Your task to perform on an android device: change notification settings in the gmail app Image 0: 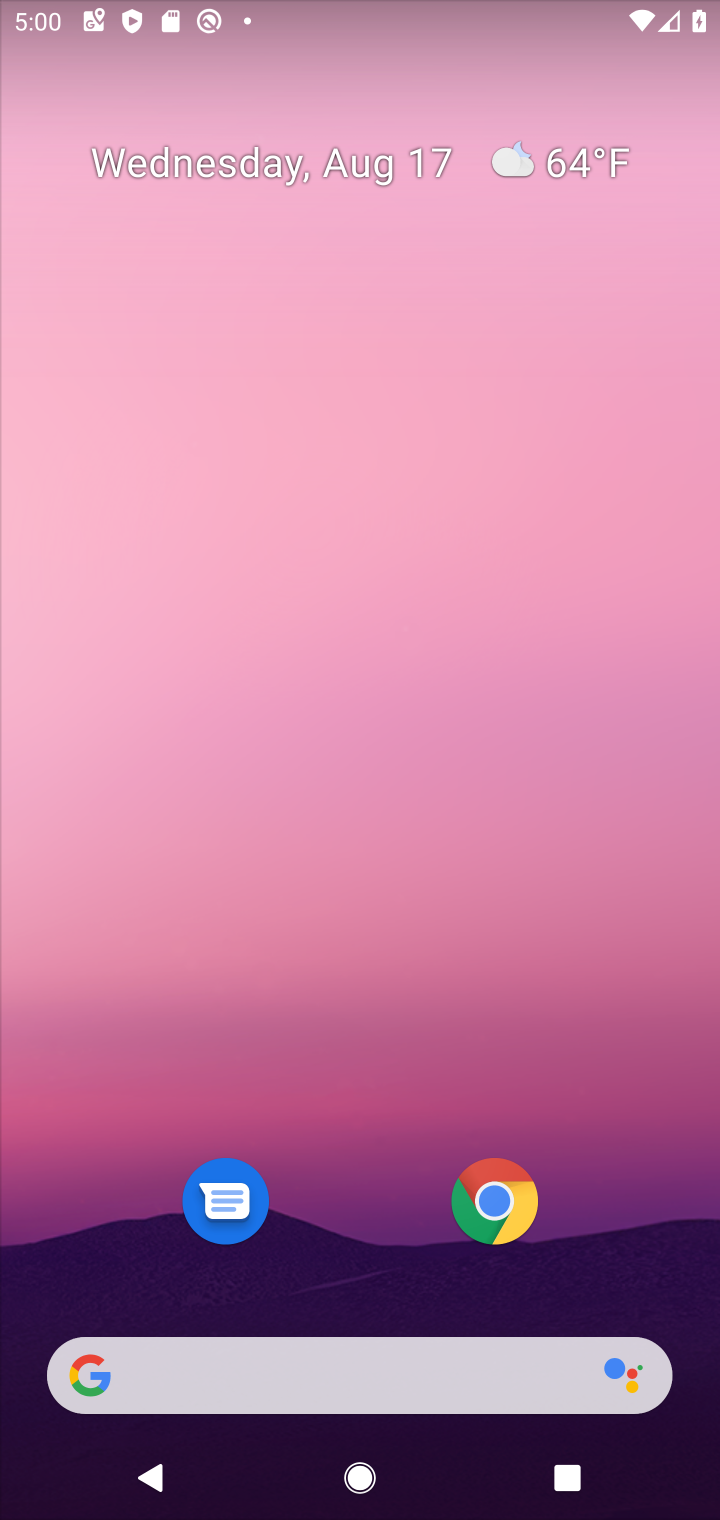
Step 0: press home button
Your task to perform on an android device: change notification settings in the gmail app Image 1: 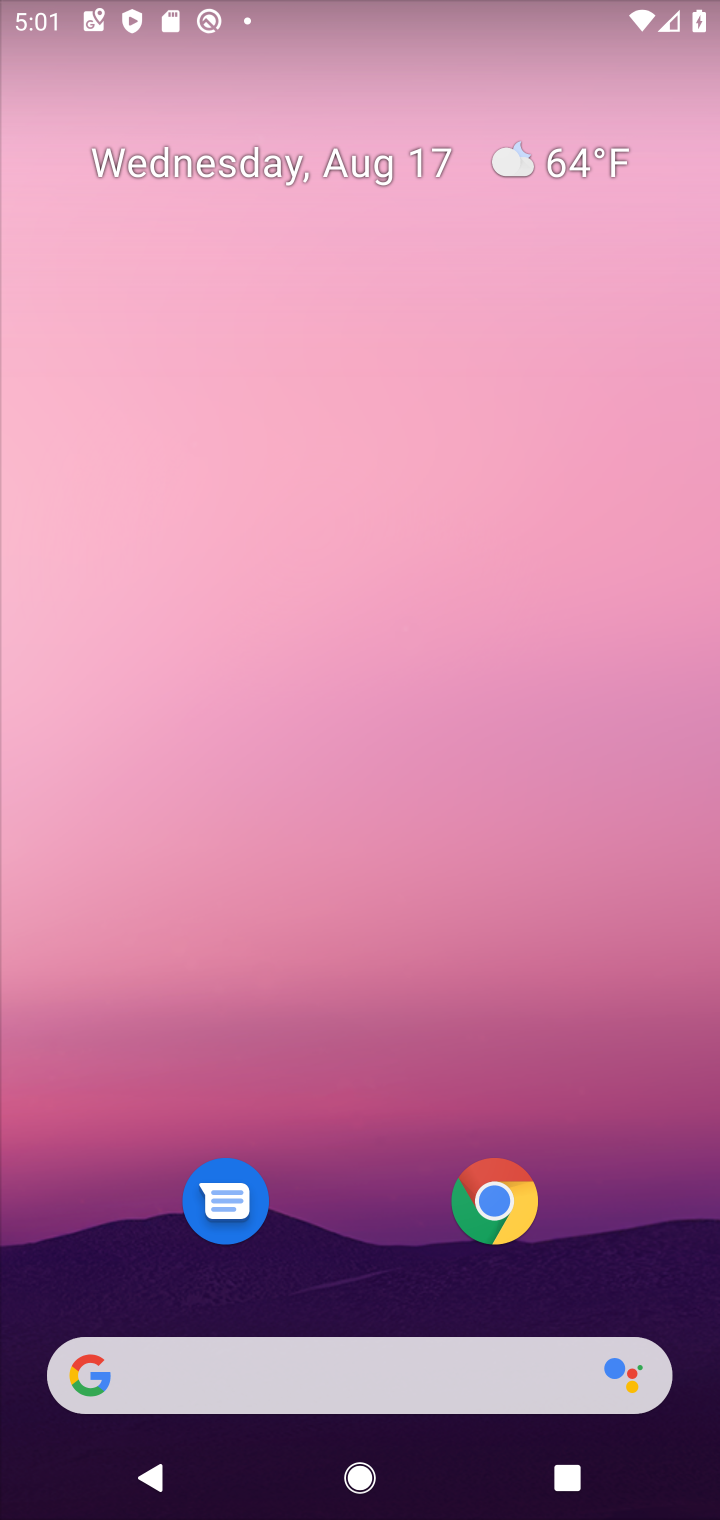
Step 1: drag from (381, 1315) to (649, 105)
Your task to perform on an android device: change notification settings in the gmail app Image 2: 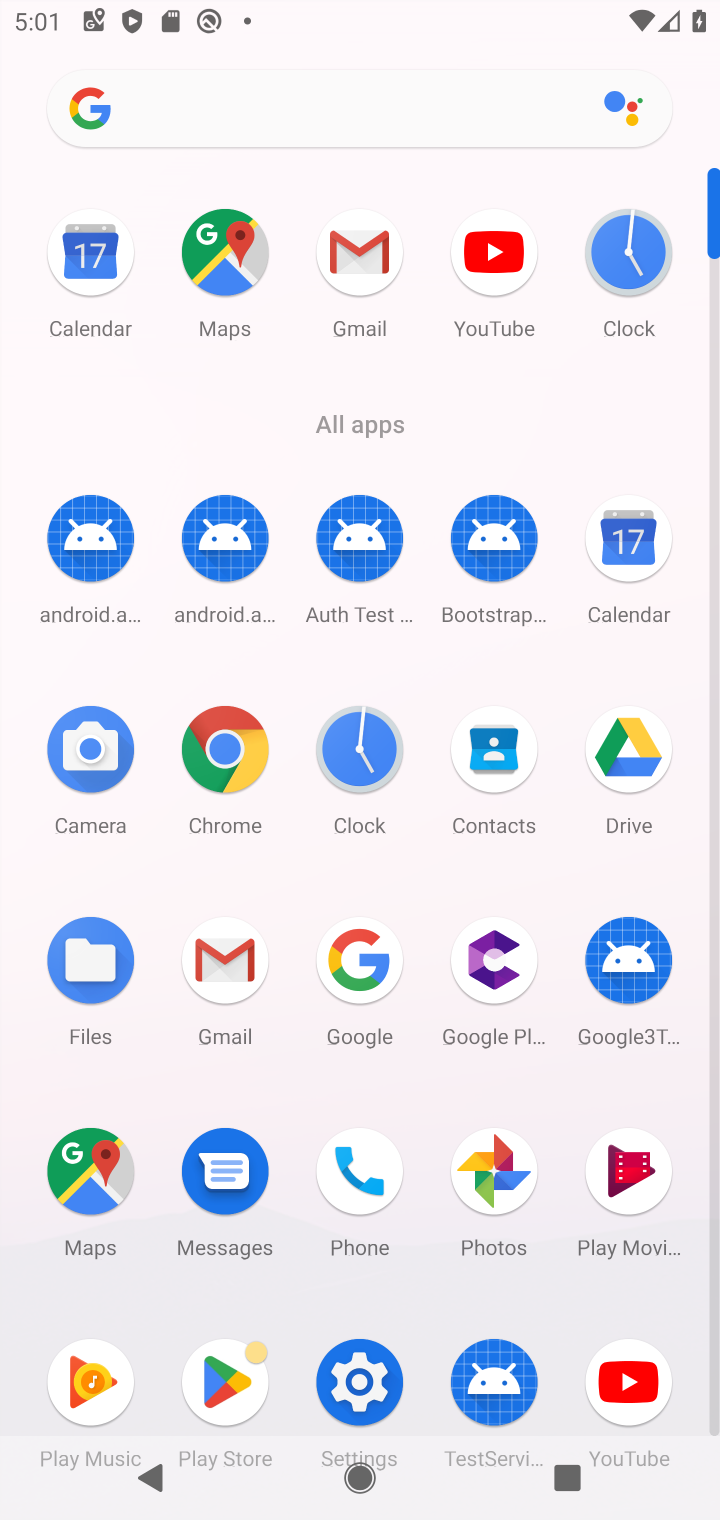
Step 2: click (343, 266)
Your task to perform on an android device: change notification settings in the gmail app Image 3: 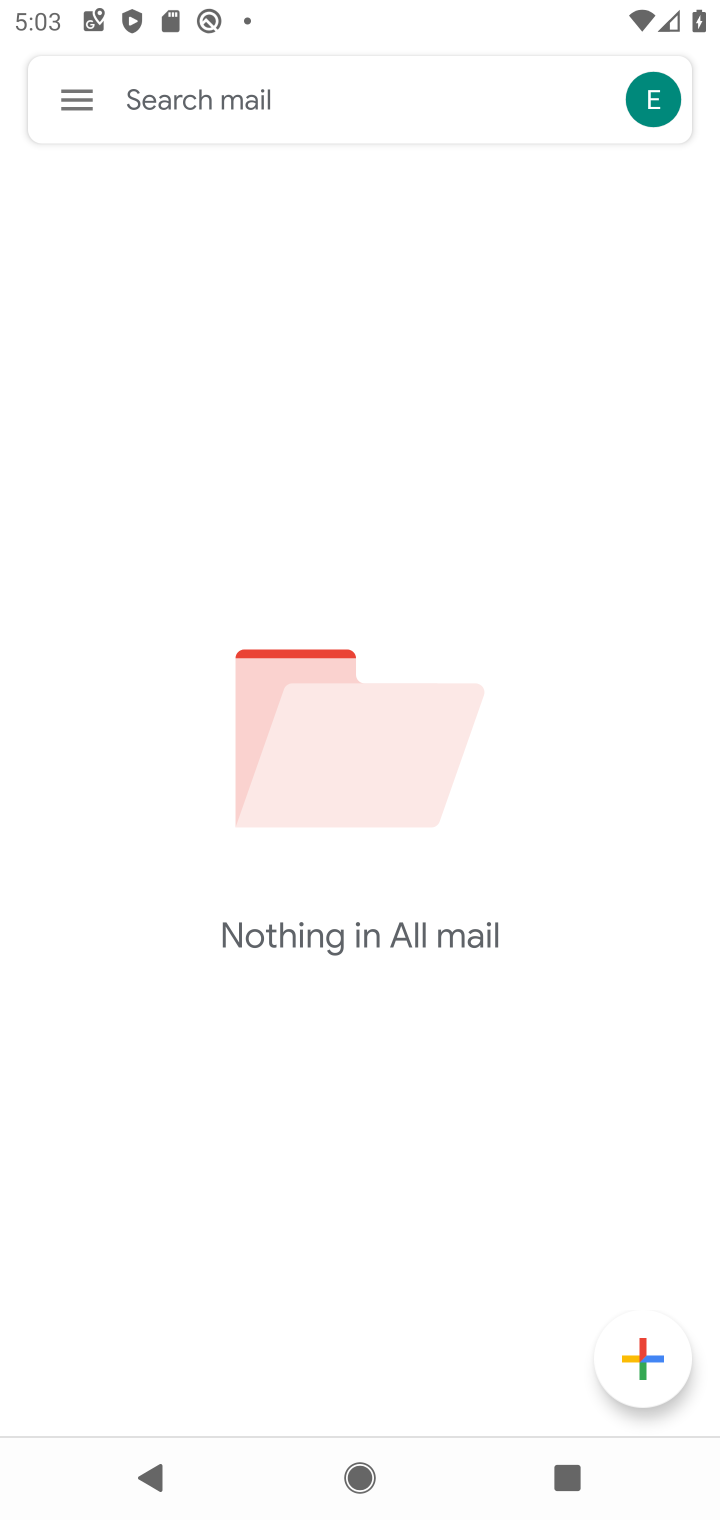
Step 3: click (56, 98)
Your task to perform on an android device: change notification settings in the gmail app Image 4: 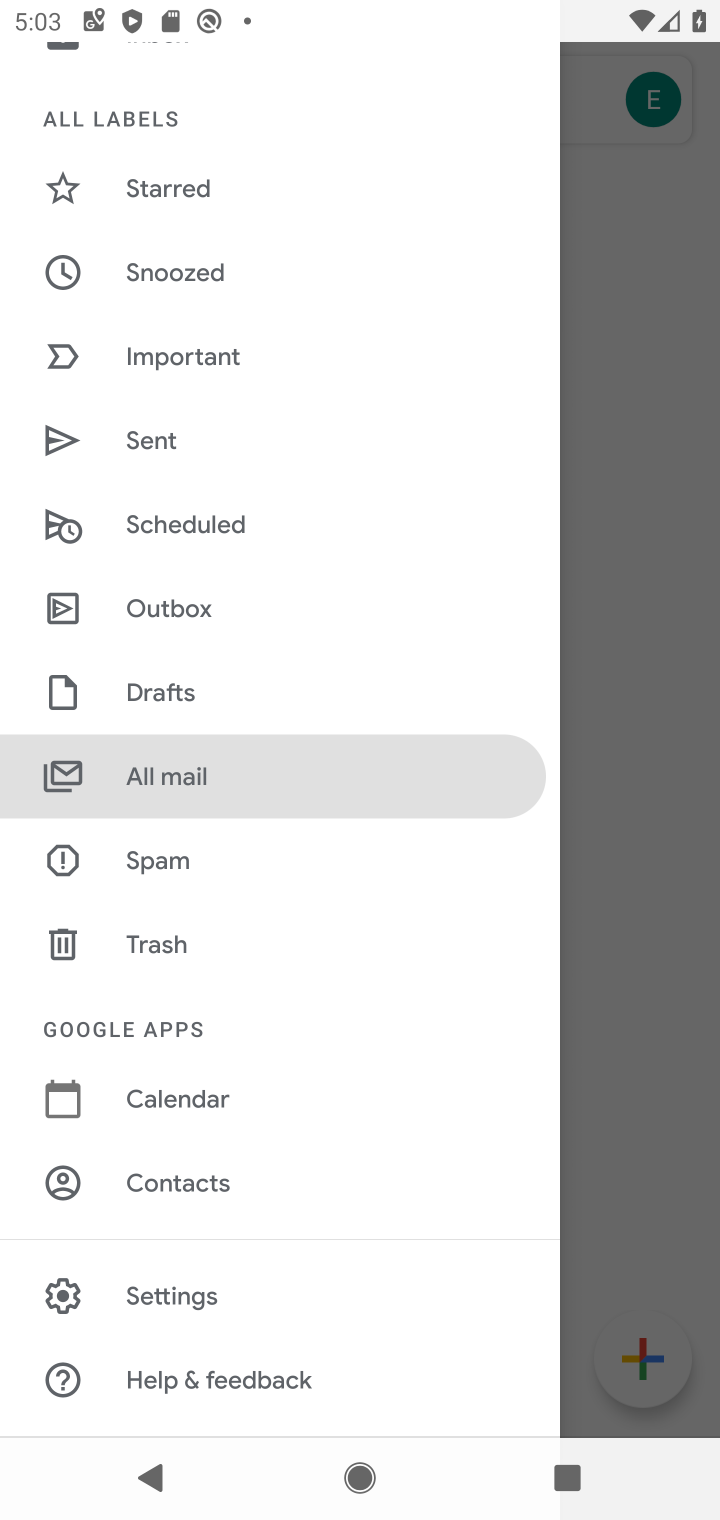
Step 4: click (184, 1284)
Your task to perform on an android device: change notification settings in the gmail app Image 5: 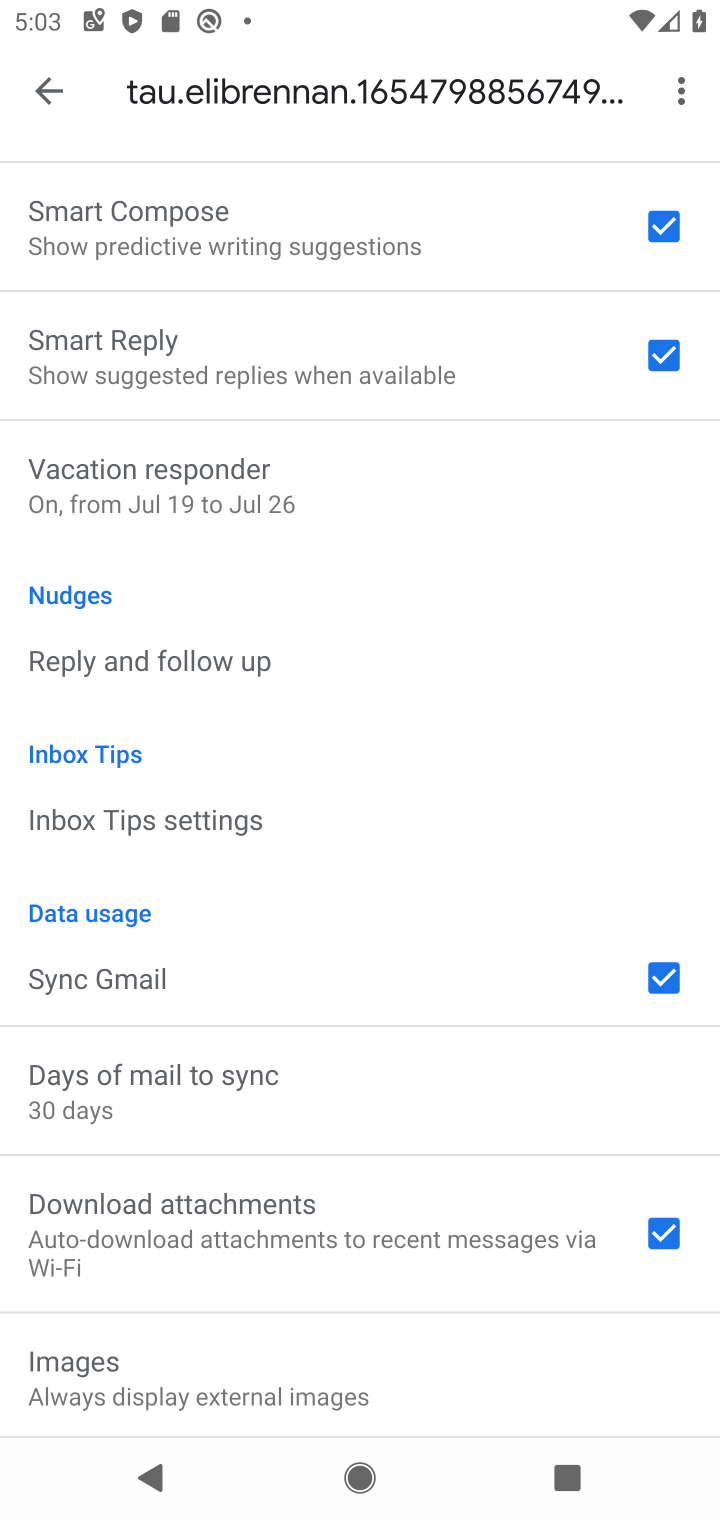
Step 5: drag from (490, 251) to (434, 1499)
Your task to perform on an android device: change notification settings in the gmail app Image 6: 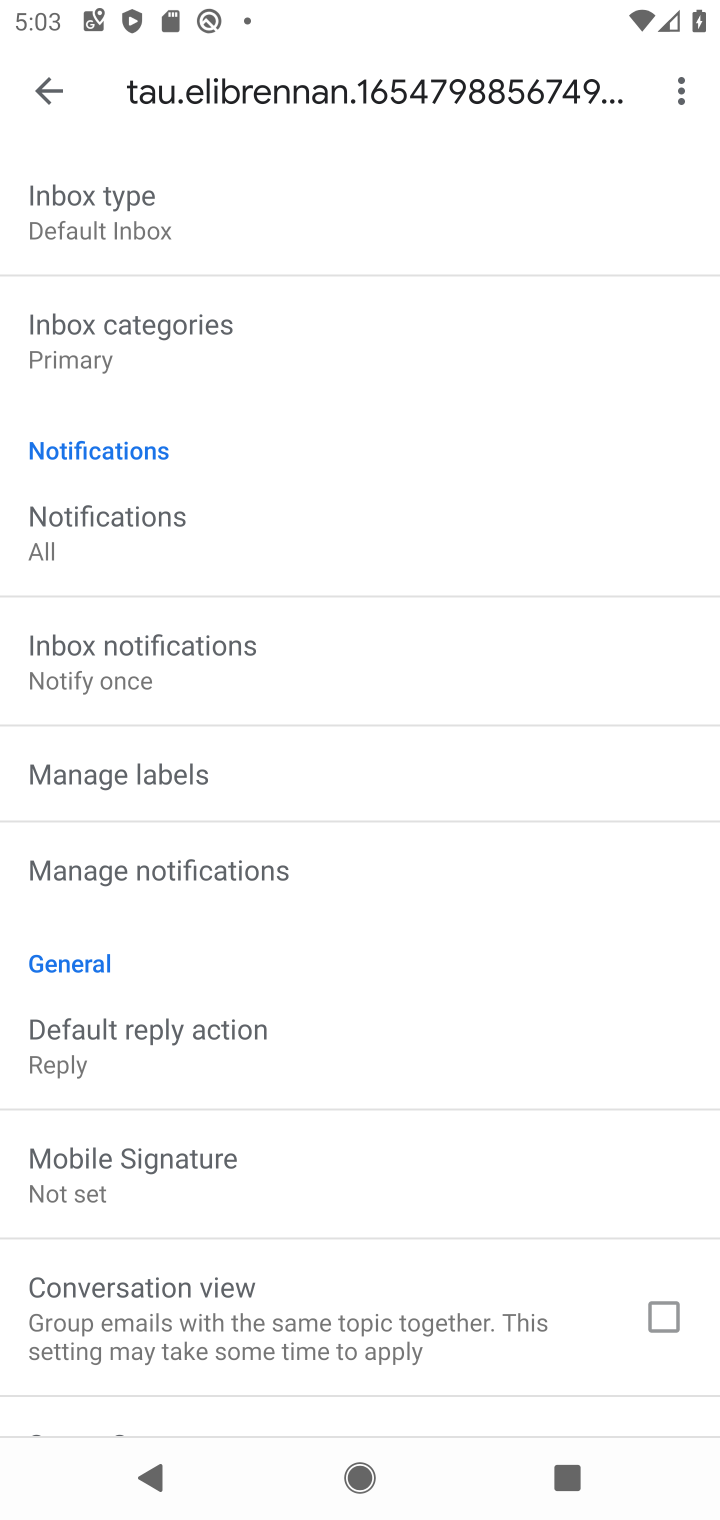
Step 6: drag from (387, 249) to (372, 1492)
Your task to perform on an android device: change notification settings in the gmail app Image 7: 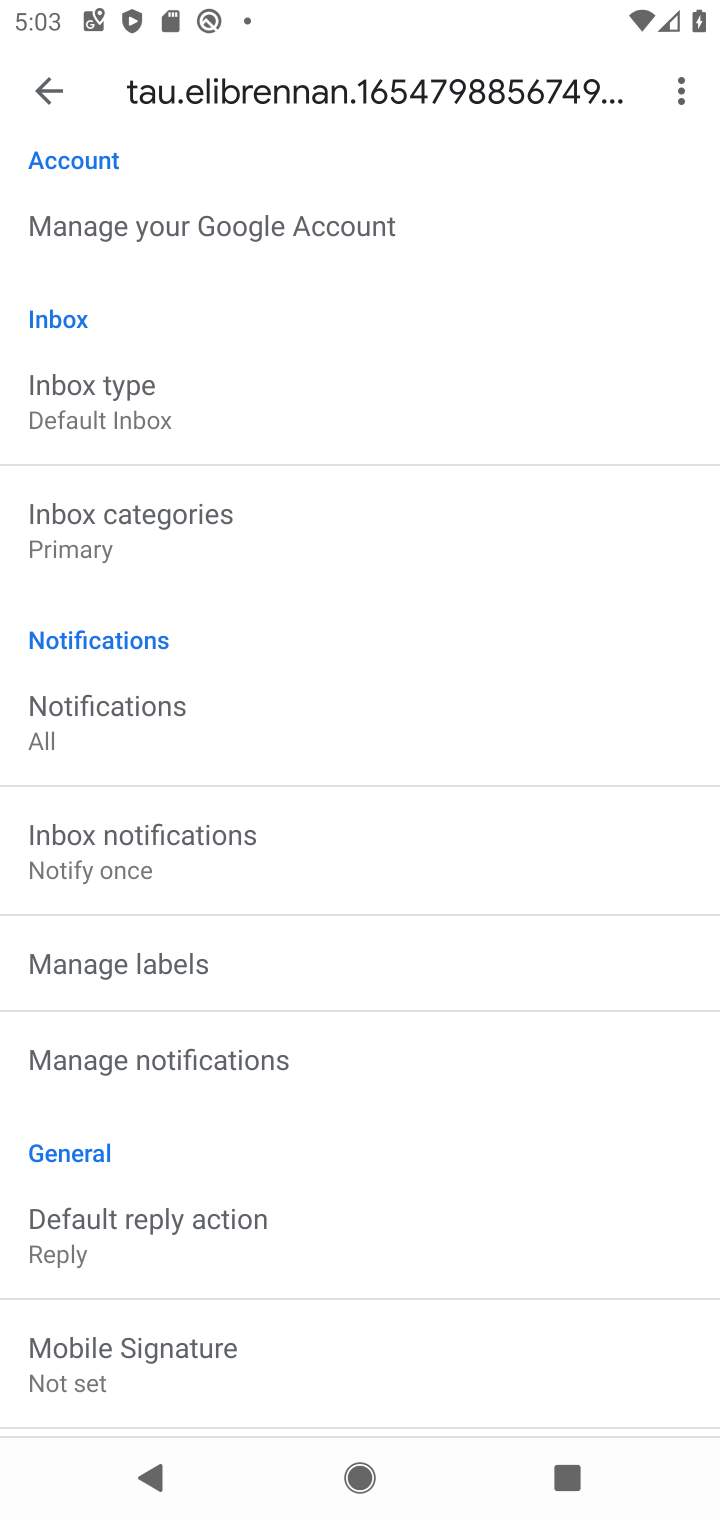
Step 7: drag from (292, 330) to (196, 1464)
Your task to perform on an android device: change notification settings in the gmail app Image 8: 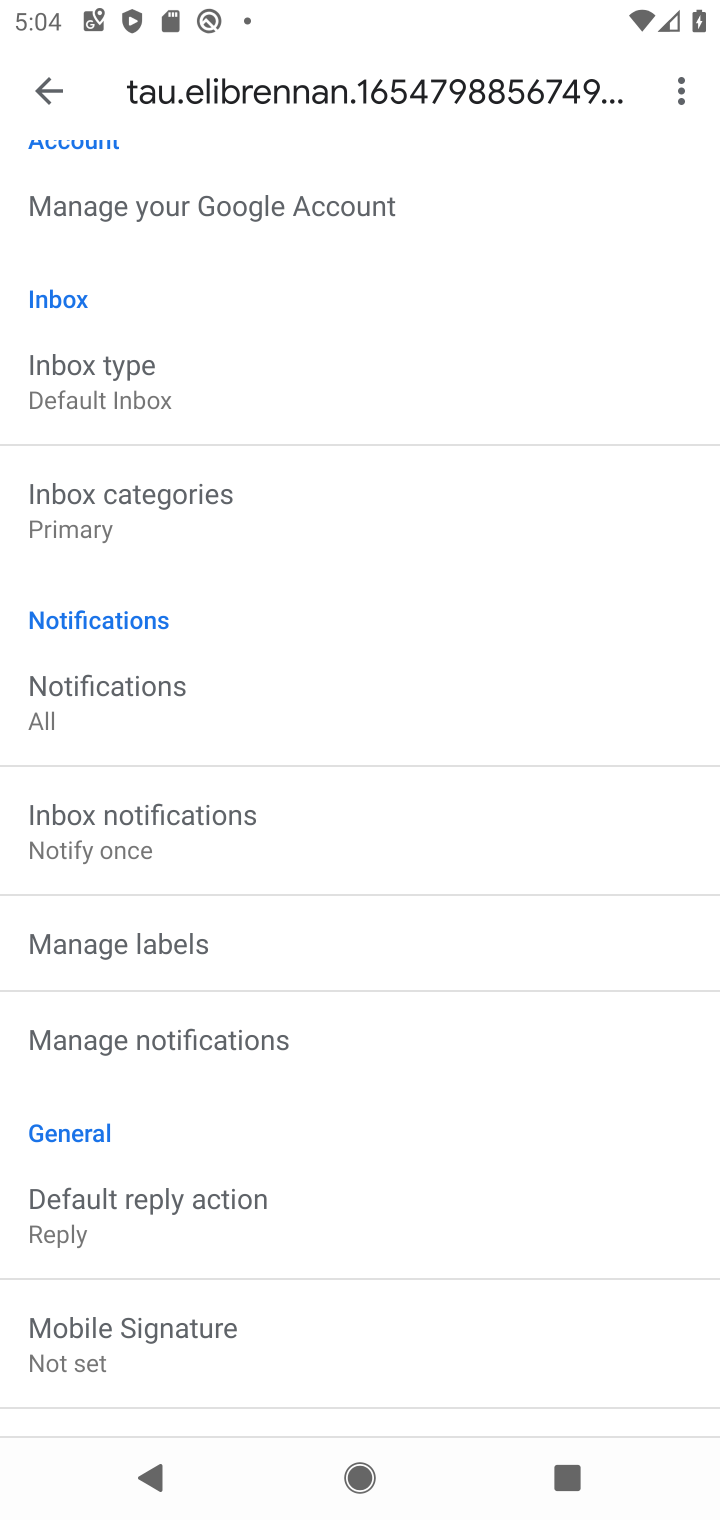
Step 8: drag from (377, 299) to (284, 1353)
Your task to perform on an android device: change notification settings in the gmail app Image 9: 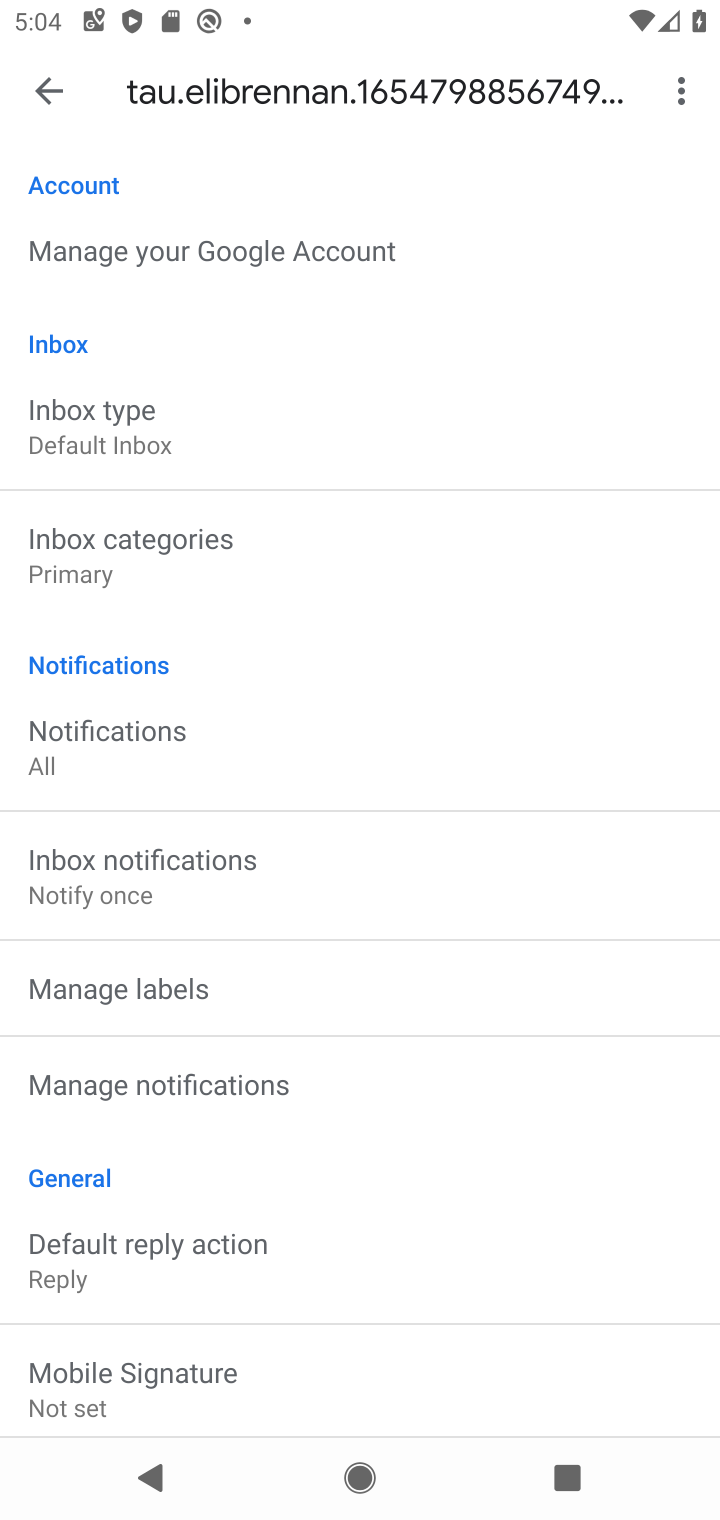
Step 9: drag from (351, 1028) to (314, 614)
Your task to perform on an android device: change notification settings in the gmail app Image 10: 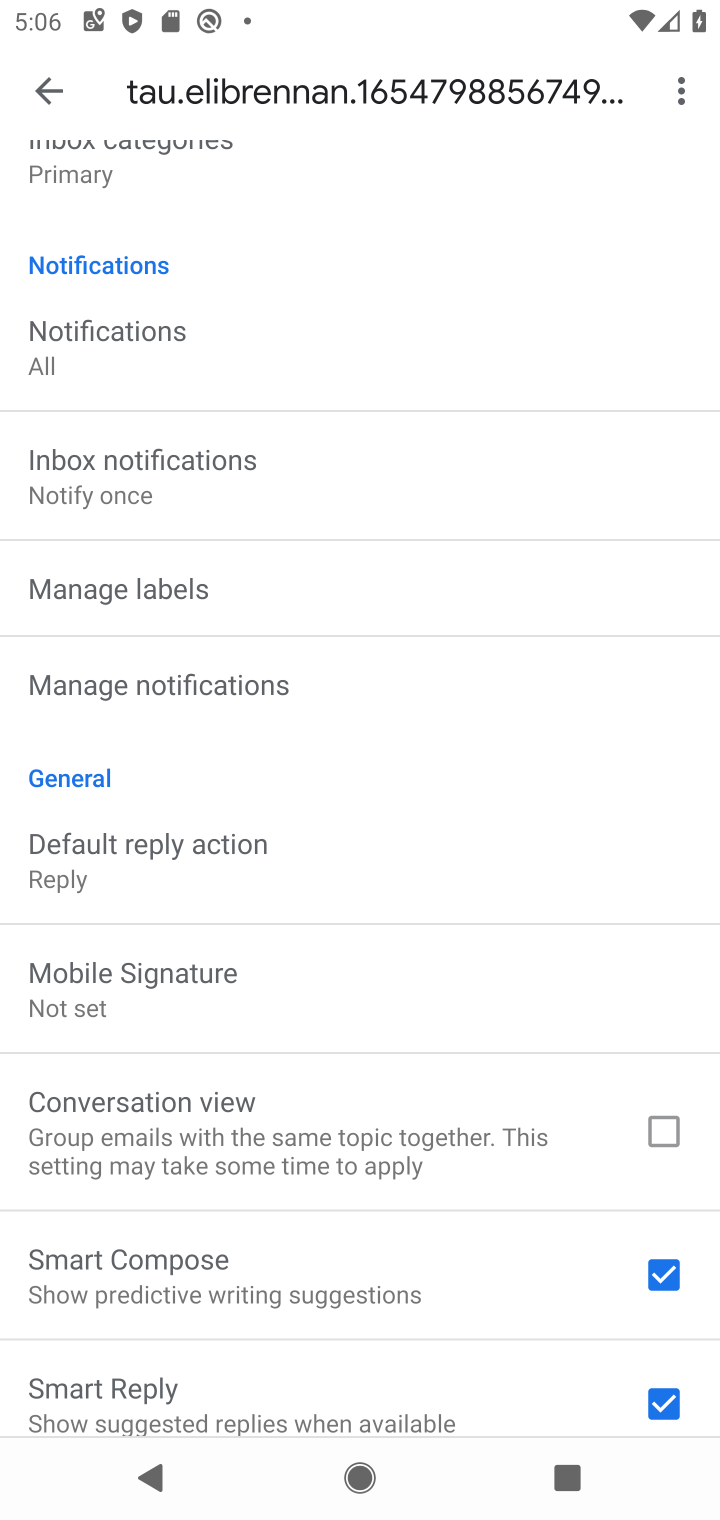
Step 10: click (93, 691)
Your task to perform on an android device: change notification settings in the gmail app Image 11: 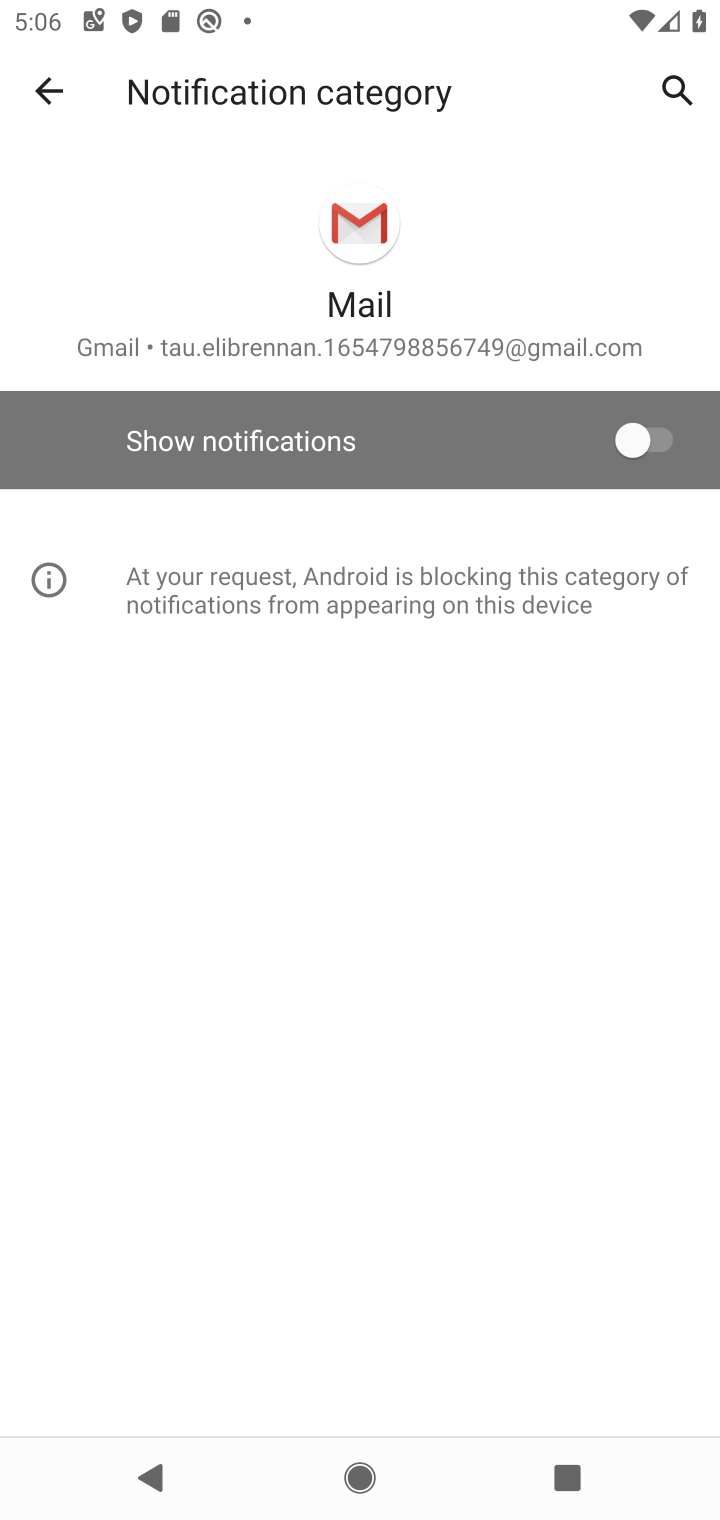
Step 11: click (635, 457)
Your task to perform on an android device: change notification settings in the gmail app Image 12: 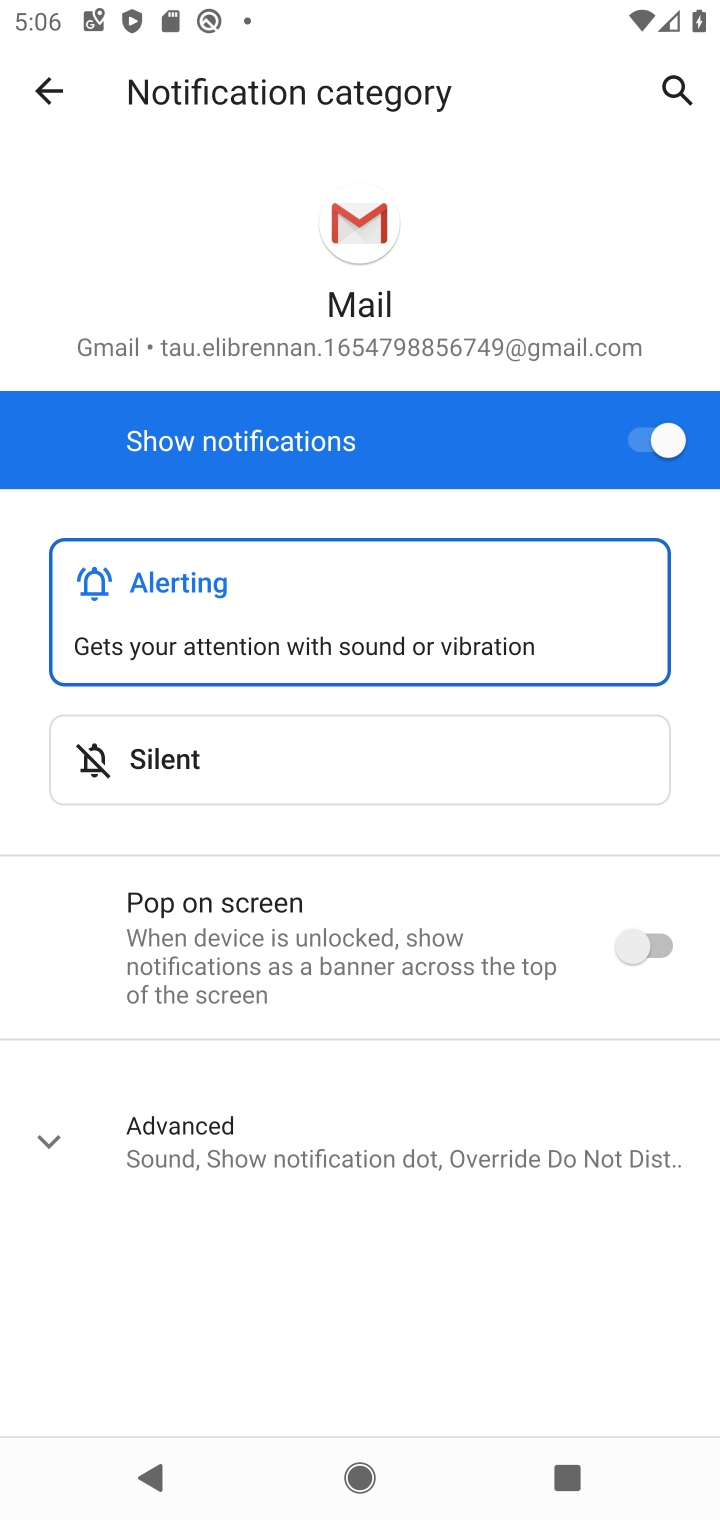
Step 12: task complete